Your task to perform on an android device: check out phone information Image 0: 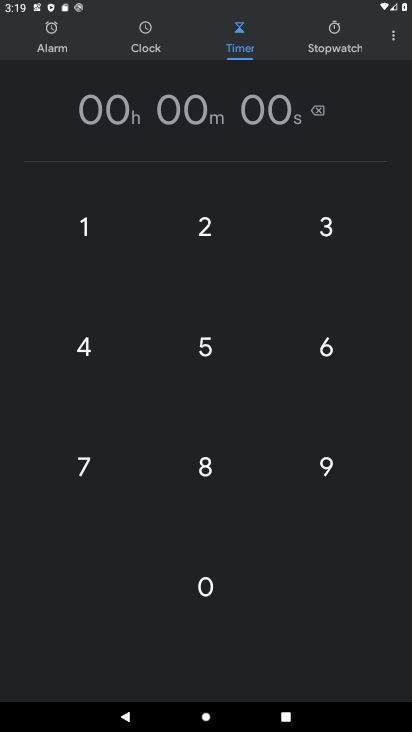
Step 0: press home button
Your task to perform on an android device: check out phone information Image 1: 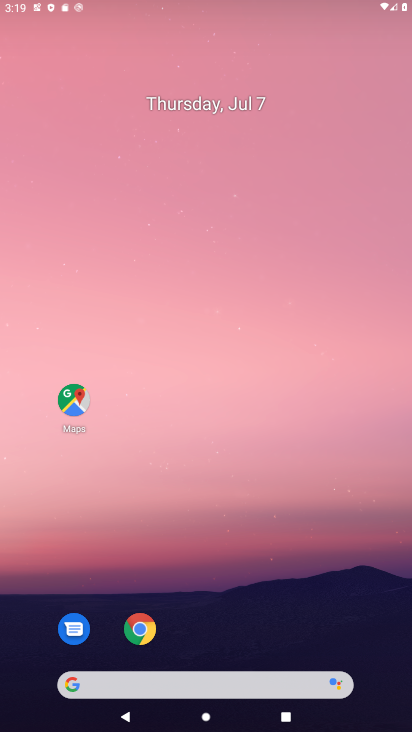
Step 1: drag from (224, 646) to (235, 296)
Your task to perform on an android device: check out phone information Image 2: 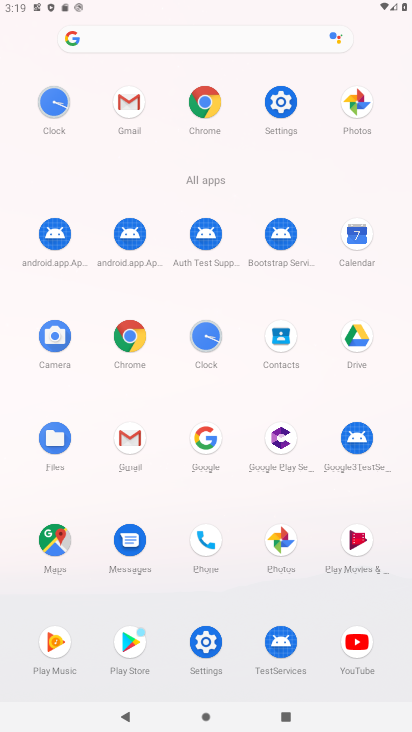
Step 2: click (285, 101)
Your task to perform on an android device: check out phone information Image 3: 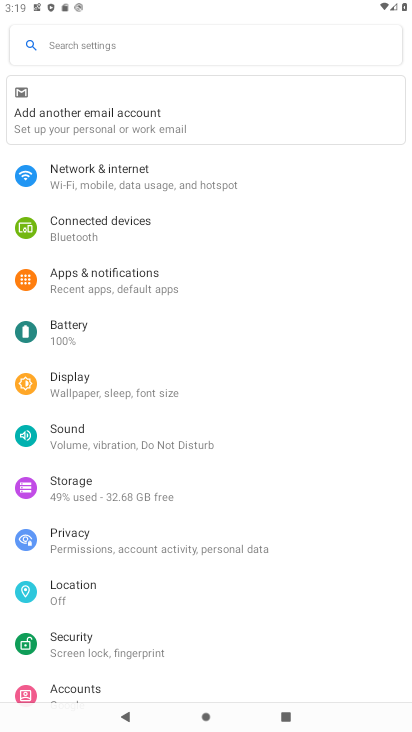
Step 3: drag from (154, 656) to (226, 176)
Your task to perform on an android device: check out phone information Image 4: 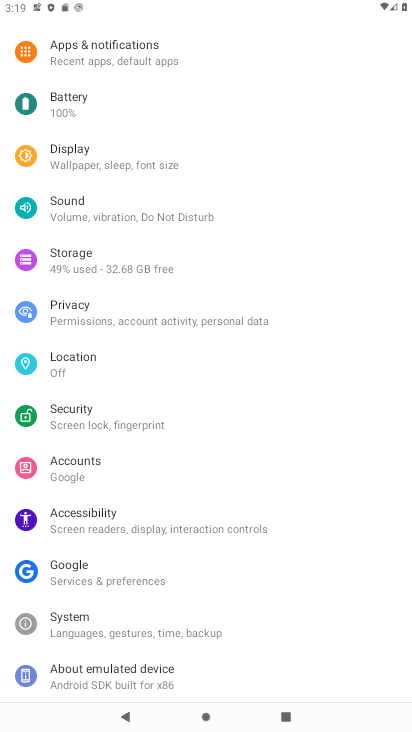
Step 4: drag from (200, 625) to (223, 189)
Your task to perform on an android device: check out phone information Image 5: 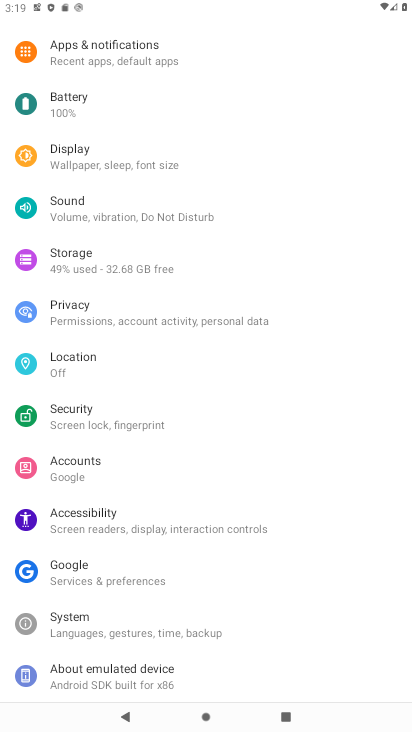
Step 5: click (133, 686)
Your task to perform on an android device: check out phone information Image 6: 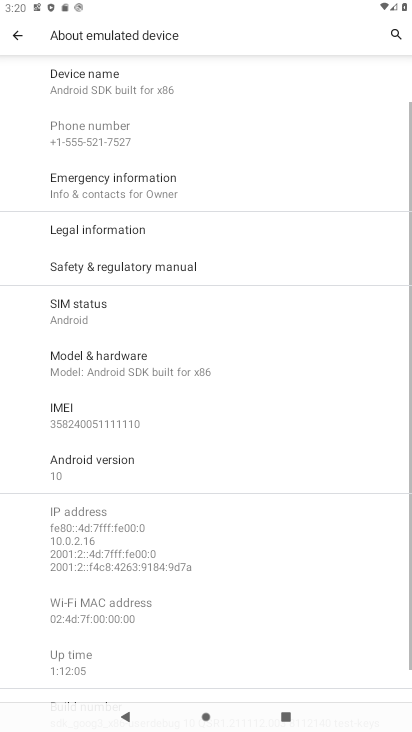
Step 6: task complete